Your task to perform on an android device: Open accessibility settings Image 0: 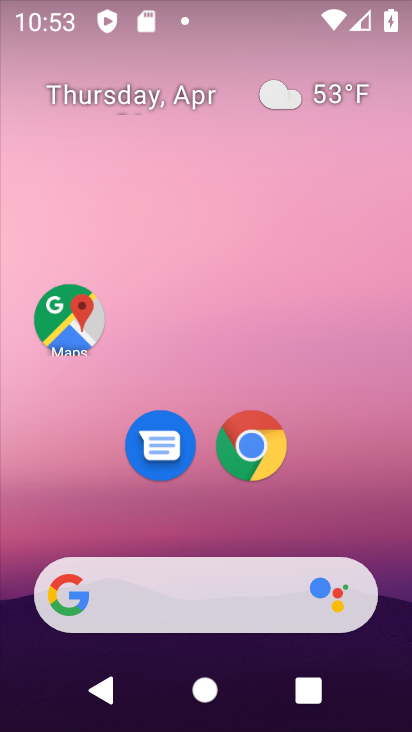
Step 0: drag from (168, 575) to (316, 60)
Your task to perform on an android device: Open accessibility settings Image 1: 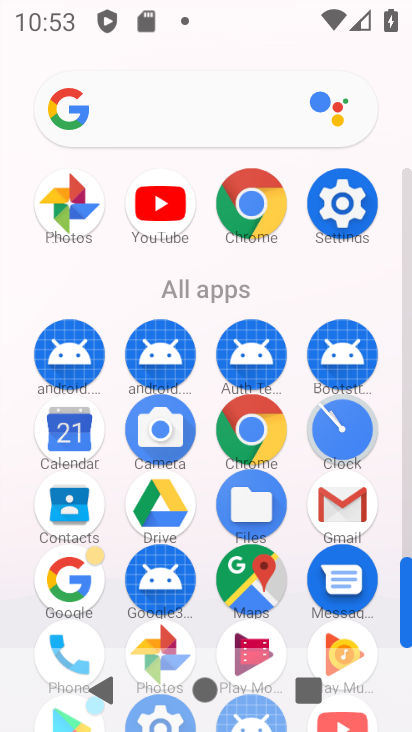
Step 1: click (353, 201)
Your task to perform on an android device: Open accessibility settings Image 2: 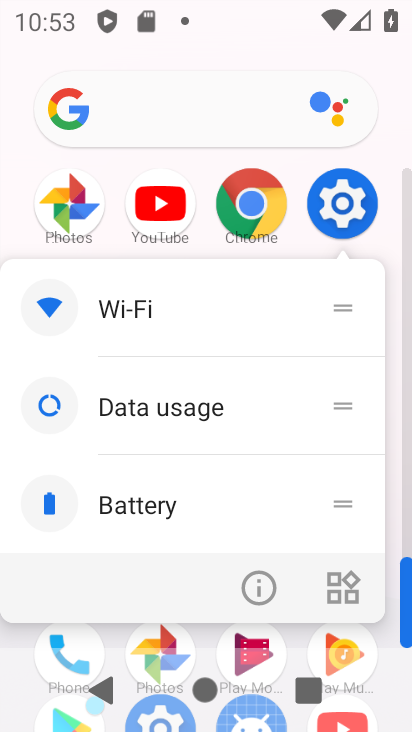
Step 2: click (344, 208)
Your task to perform on an android device: Open accessibility settings Image 3: 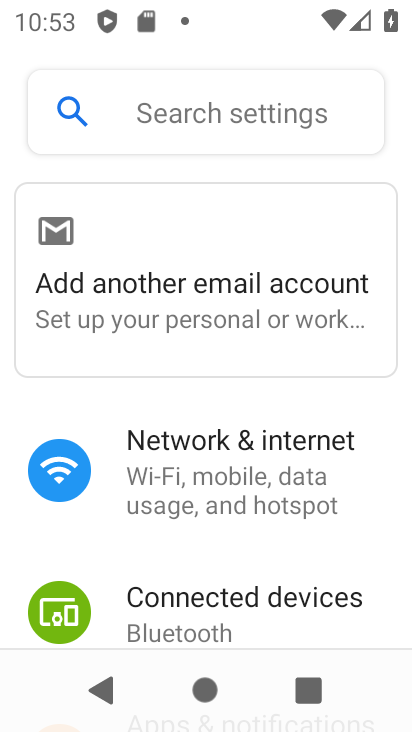
Step 3: drag from (163, 636) to (373, 157)
Your task to perform on an android device: Open accessibility settings Image 4: 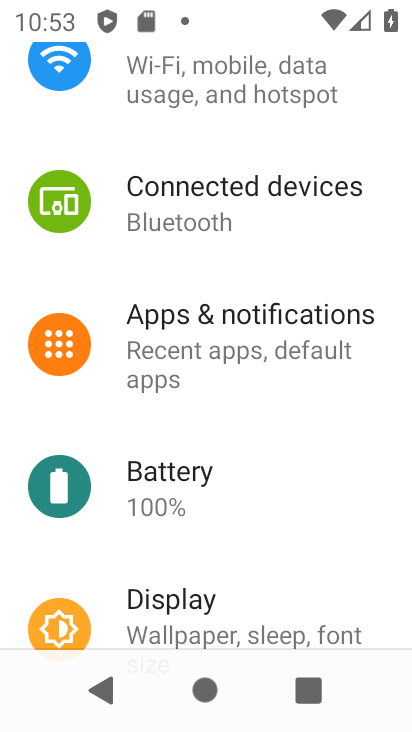
Step 4: drag from (195, 569) to (372, 32)
Your task to perform on an android device: Open accessibility settings Image 5: 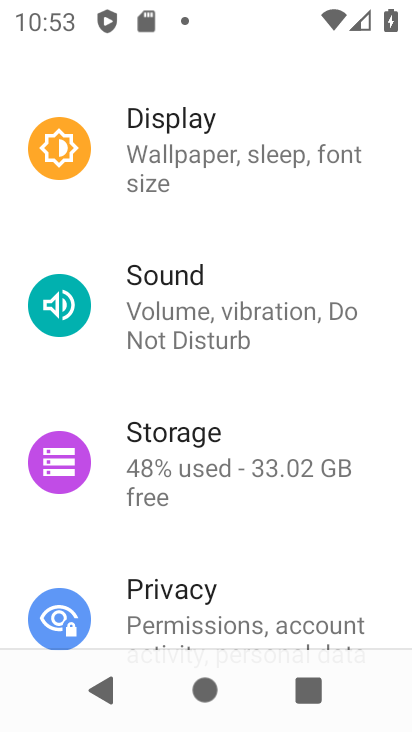
Step 5: drag from (198, 560) to (297, 2)
Your task to perform on an android device: Open accessibility settings Image 6: 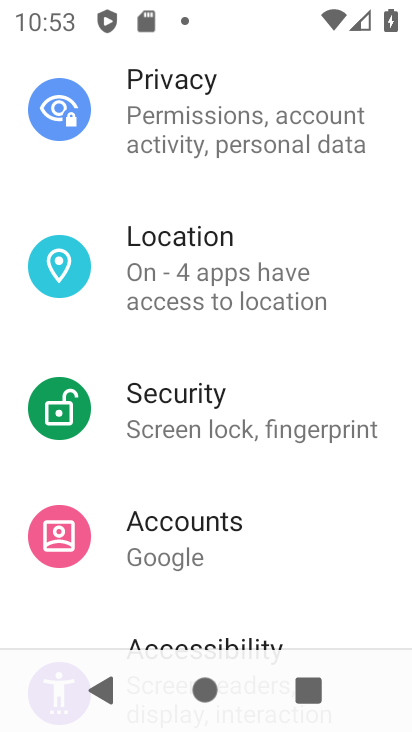
Step 6: drag from (246, 592) to (322, 253)
Your task to perform on an android device: Open accessibility settings Image 7: 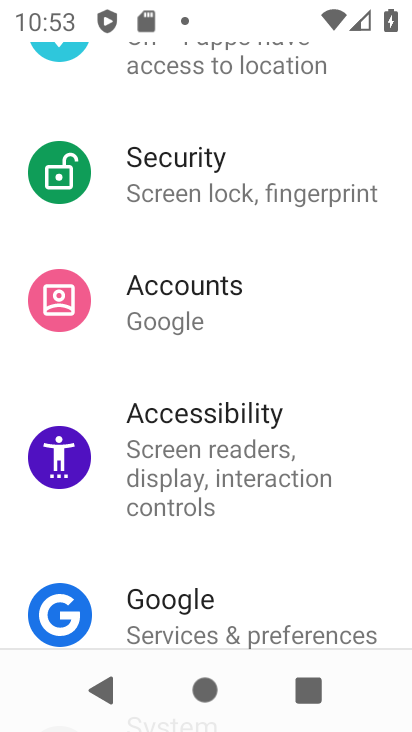
Step 7: click (236, 456)
Your task to perform on an android device: Open accessibility settings Image 8: 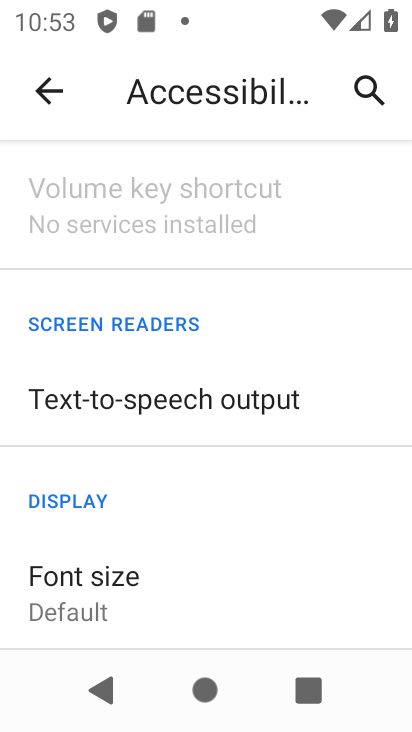
Step 8: task complete